Your task to perform on an android device: turn off location history Image 0: 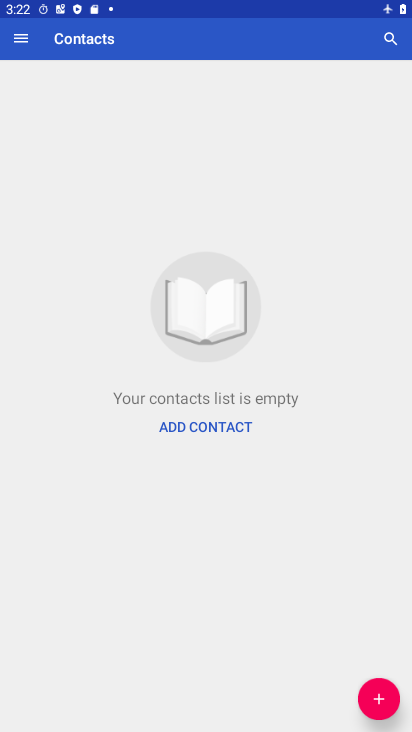
Step 0: press home button
Your task to perform on an android device: turn off location history Image 1: 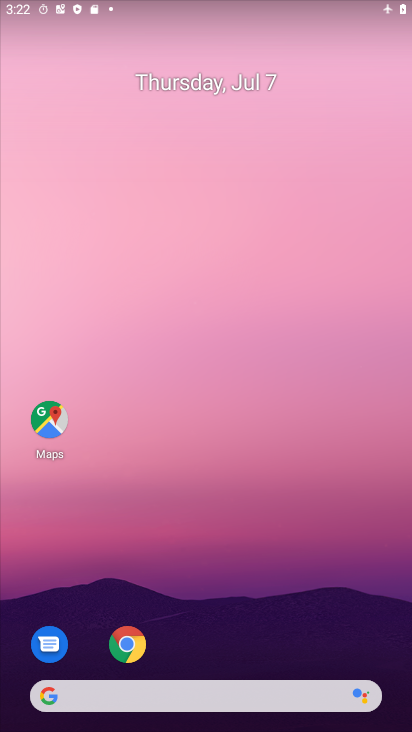
Step 1: drag from (222, 687) to (401, 600)
Your task to perform on an android device: turn off location history Image 2: 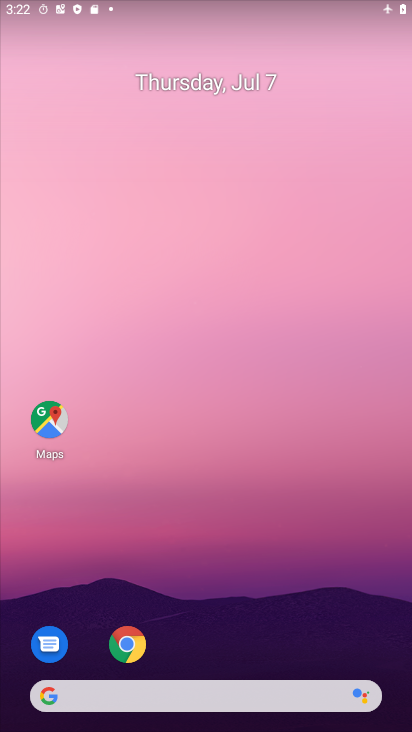
Step 2: drag from (195, 664) to (151, 14)
Your task to perform on an android device: turn off location history Image 3: 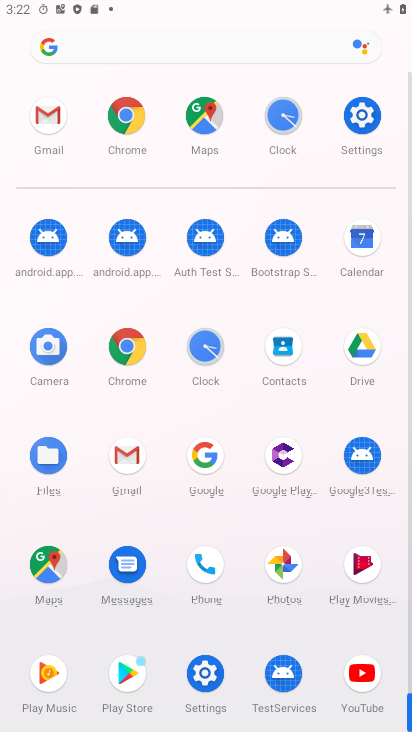
Step 3: click (197, 662)
Your task to perform on an android device: turn off location history Image 4: 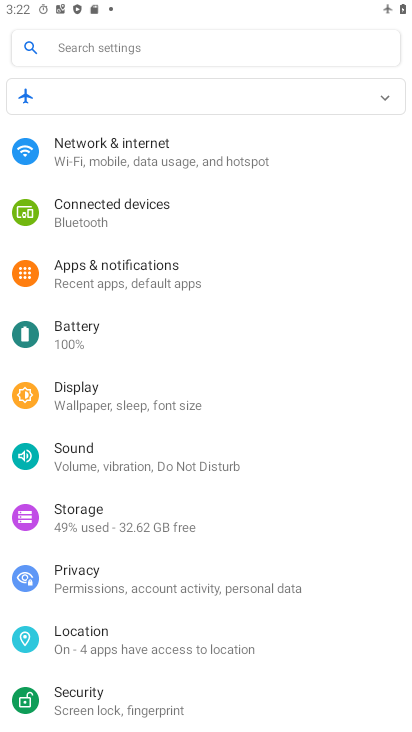
Step 4: drag from (230, 612) to (235, 170)
Your task to perform on an android device: turn off location history Image 5: 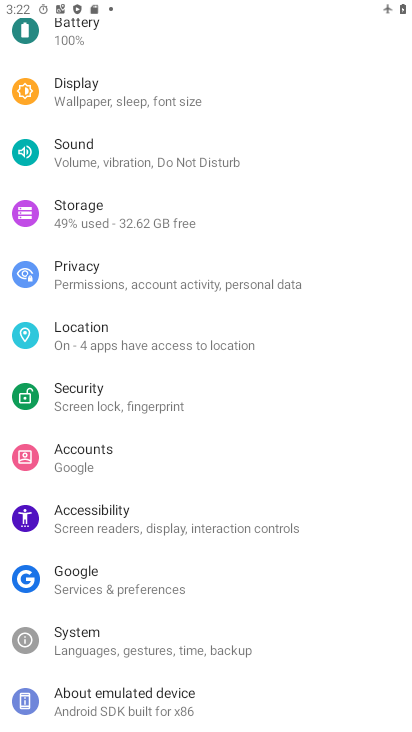
Step 5: click (101, 330)
Your task to perform on an android device: turn off location history Image 6: 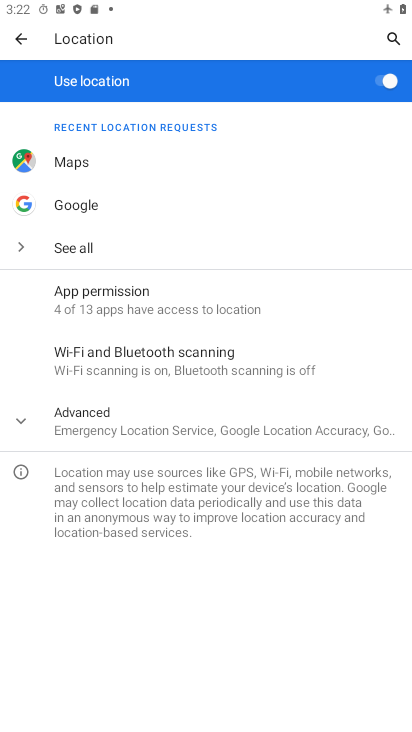
Step 6: click (168, 403)
Your task to perform on an android device: turn off location history Image 7: 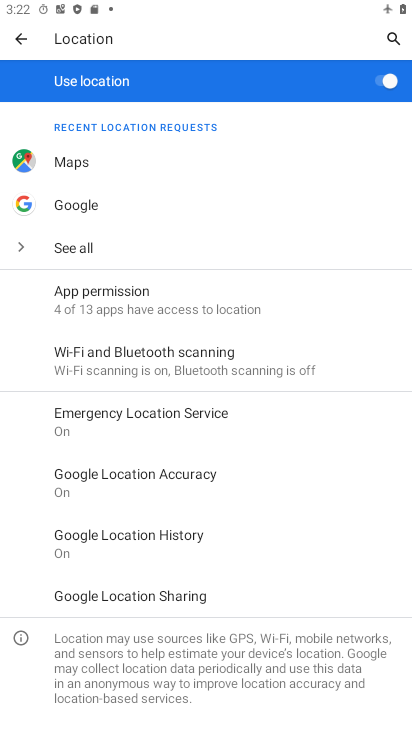
Step 7: click (200, 528)
Your task to perform on an android device: turn off location history Image 8: 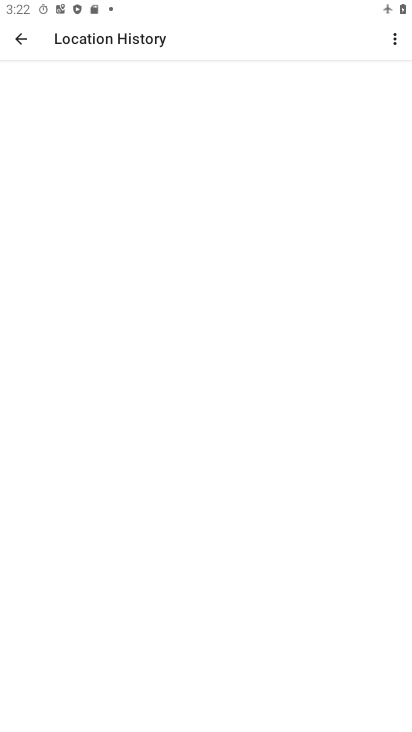
Step 8: drag from (189, 513) to (197, 200)
Your task to perform on an android device: turn off location history Image 9: 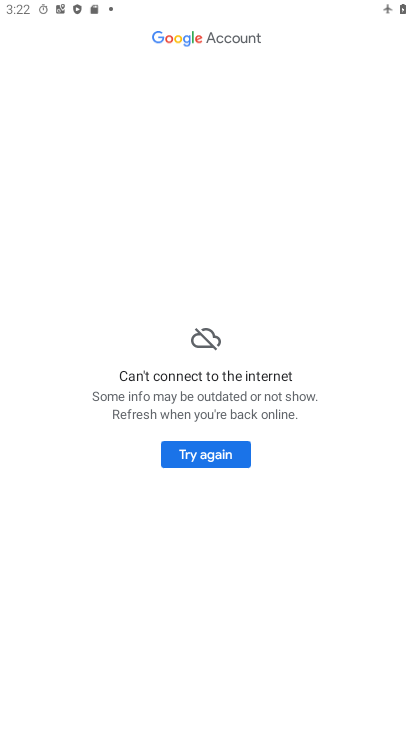
Step 9: click (229, 462)
Your task to perform on an android device: turn off location history Image 10: 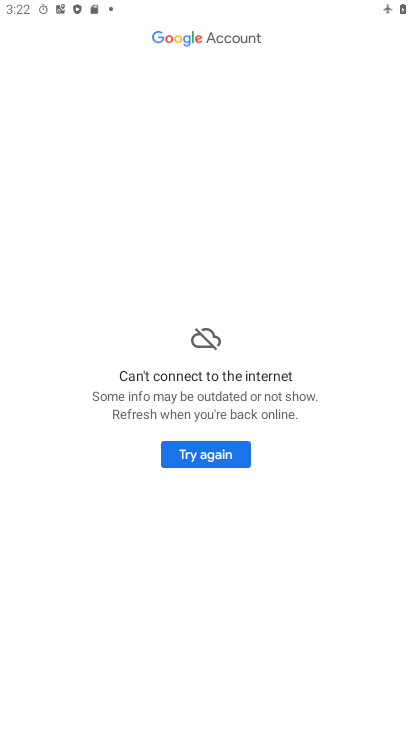
Step 10: task complete